Your task to perform on an android device: Open the map Image 0: 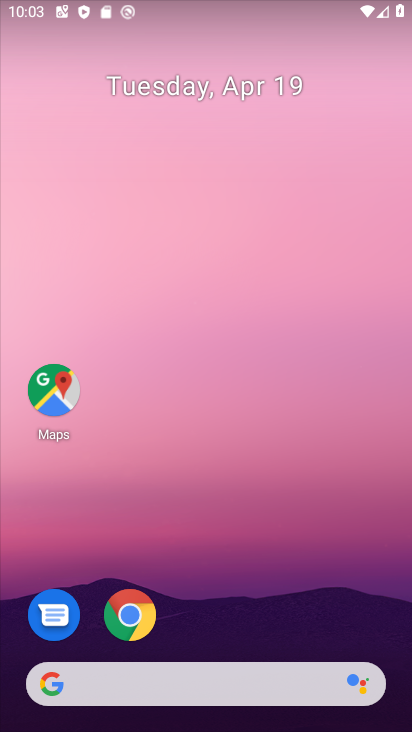
Step 0: click (47, 378)
Your task to perform on an android device: Open the map Image 1: 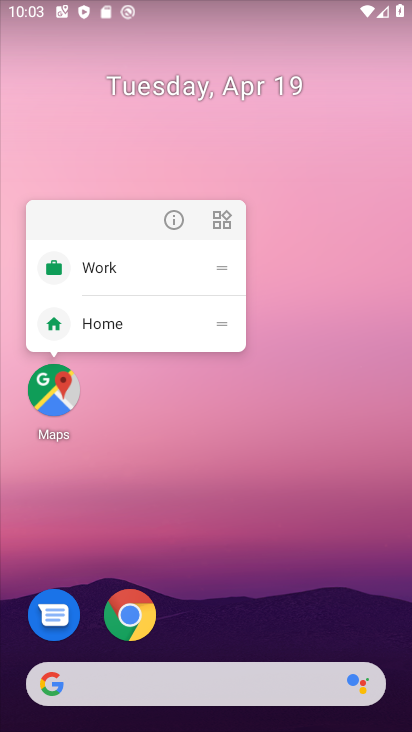
Step 1: click (173, 214)
Your task to perform on an android device: Open the map Image 2: 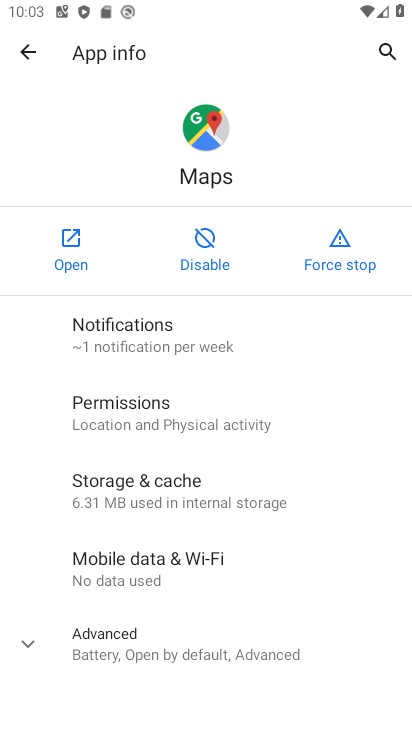
Step 2: click (75, 245)
Your task to perform on an android device: Open the map Image 3: 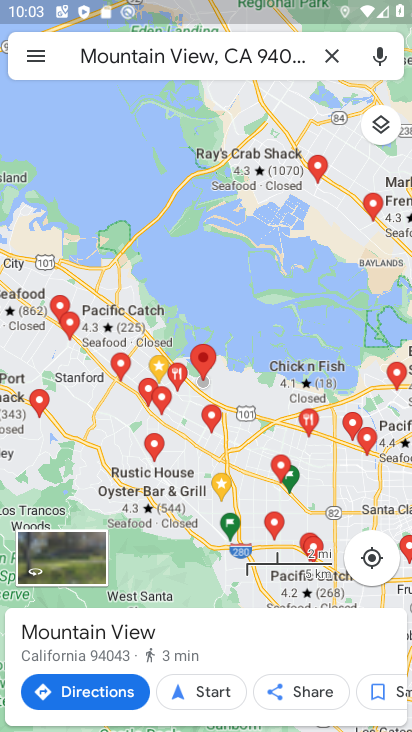
Step 3: task complete